Your task to perform on an android device: change the clock display to analog Image 0: 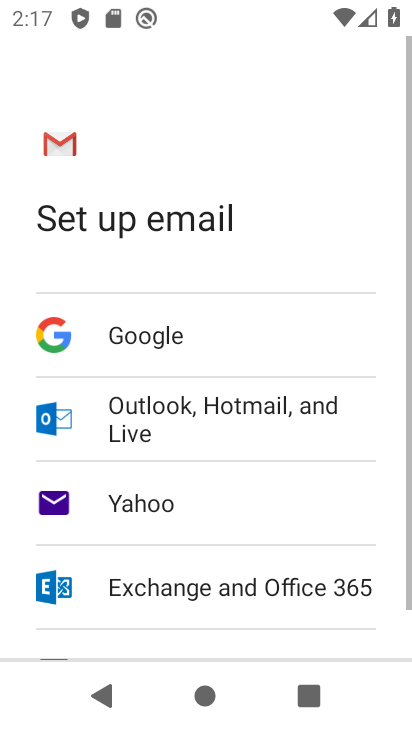
Step 0: press home button
Your task to perform on an android device: change the clock display to analog Image 1: 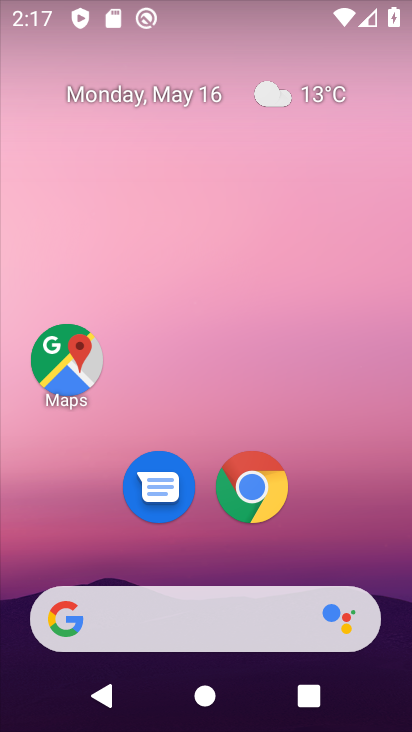
Step 1: drag from (330, 527) to (135, 74)
Your task to perform on an android device: change the clock display to analog Image 2: 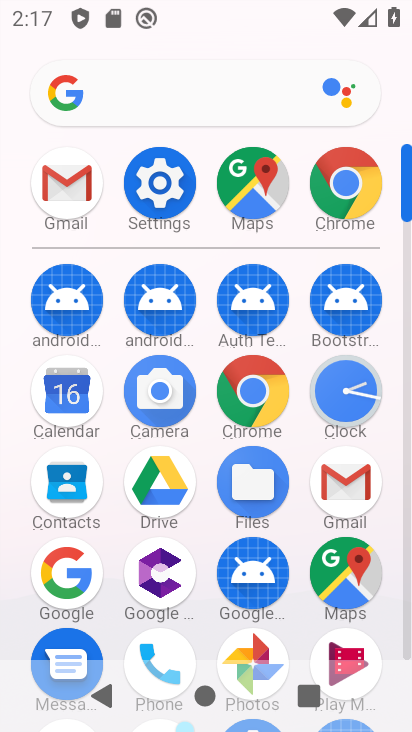
Step 2: click (331, 378)
Your task to perform on an android device: change the clock display to analog Image 3: 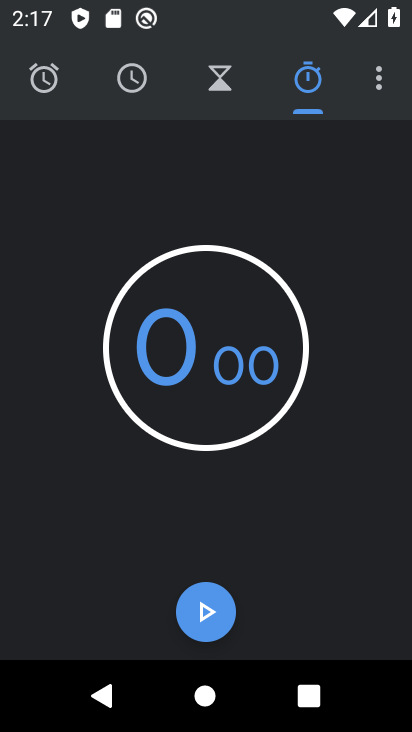
Step 3: click (375, 85)
Your task to perform on an android device: change the clock display to analog Image 4: 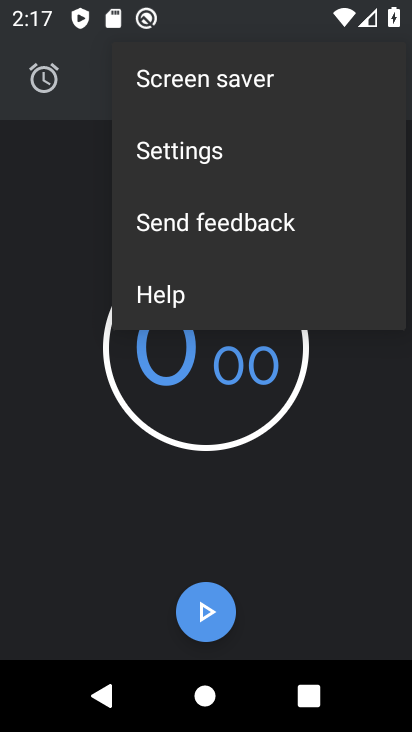
Step 4: click (185, 148)
Your task to perform on an android device: change the clock display to analog Image 5: 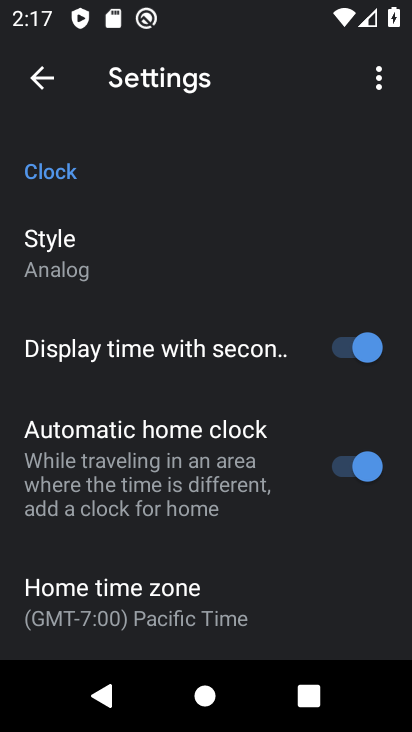
Step 5: task complete